Your task to perform on an android device: Toggle the flashlight Image 0: 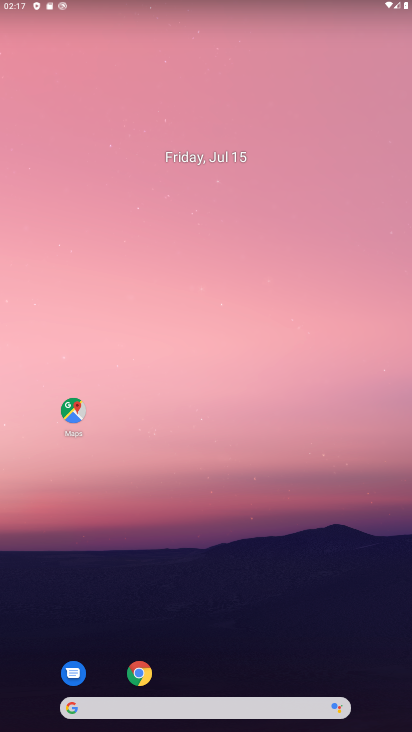
Step 0: drag from (275, 546) to (206, 18)
Your task to perform on an android device: Toggle the flashlight Image 1: 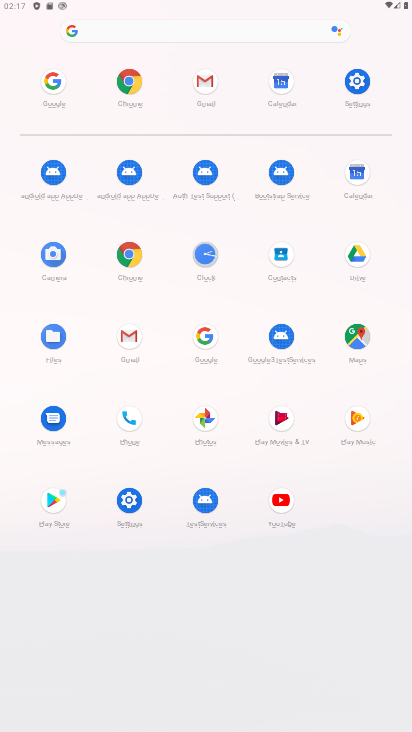
Step 1: click (367, 81)
Your task to perform on an android device: Toggle the flashlight Image 2: 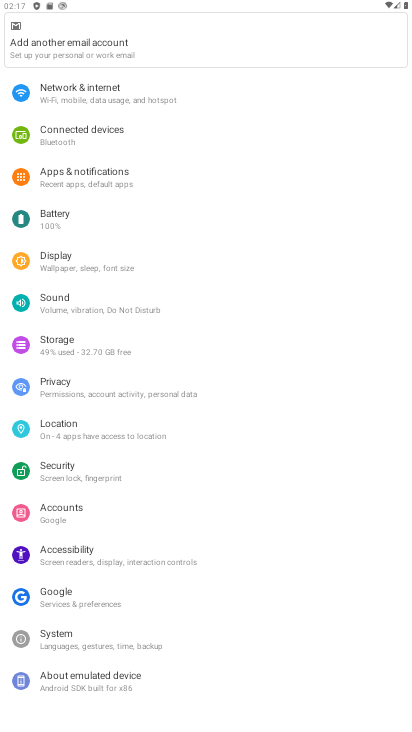
Step 2: task complete